Your task to perform on an android device: change notifications settings Image 0: 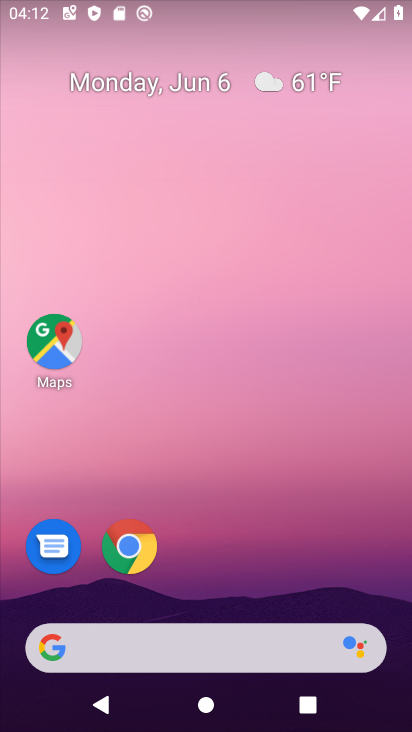
Step 0: press home button
Your task to perform on an android device: change notifications settings Image 1: 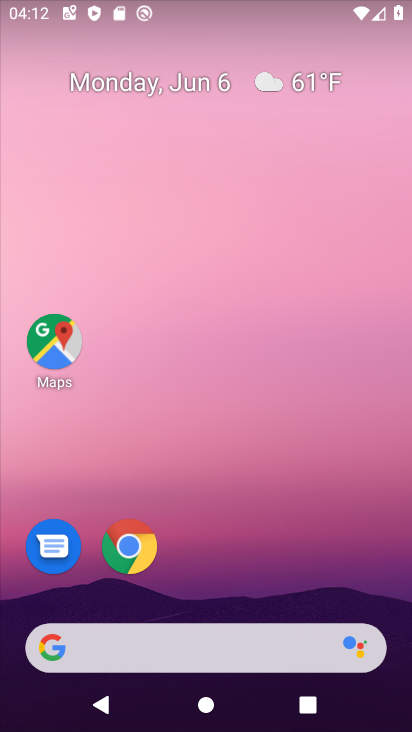
Step 1: drag from (187, 611) to (294, 145)
Your task to perform on an android device: change notifications settings Image 2: 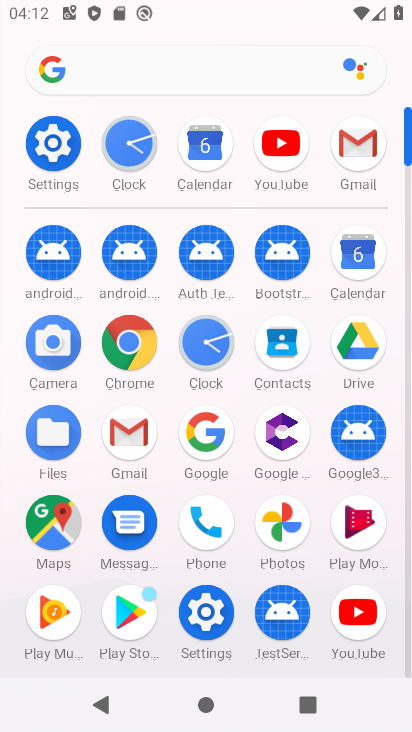
Step 2: click (55, 143)
Your task to perform on an android device: change notifications settings Image 3: 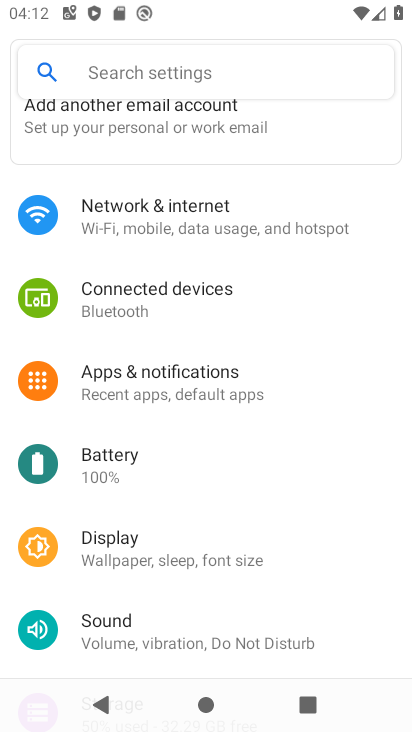
Step 3: click (192, 383)
Your task to perform on an android device: change notifications settings Image 4: 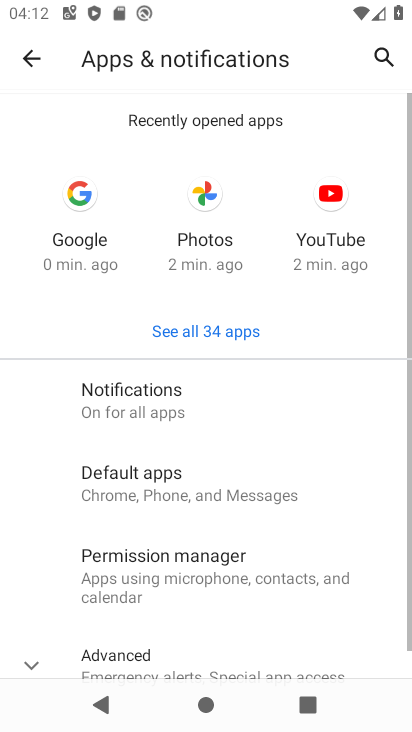
Step 4: click (144, 396)
Your task to perform on an android device: change notifications settings Image 5: 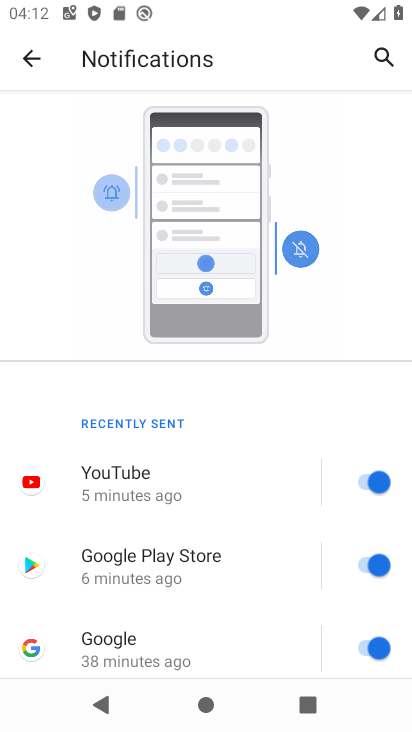
Step 5: click (389, 475)
Your task to perform on an android device: change notifications settings Image 6: 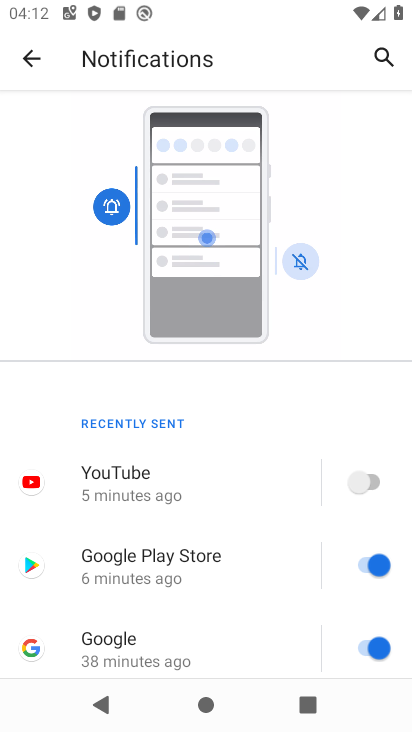
Step 6: task complete